Your task to perform on an android device: turn notification dots off Image 0: 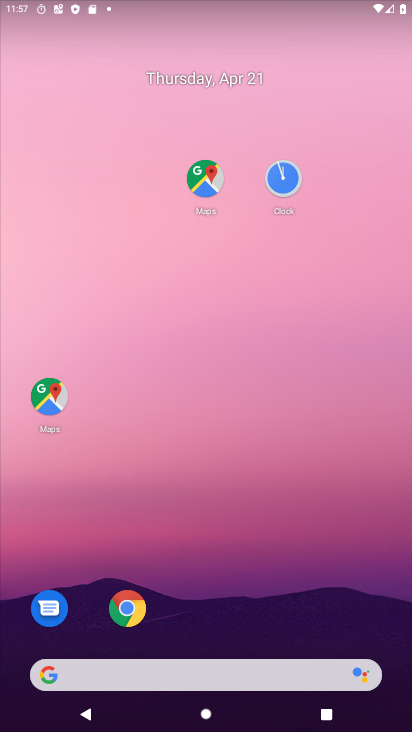
Step 0: drag from (293, 687) to (165, 118)
Your task to perform on an android device: turn notification dots off Image 1: 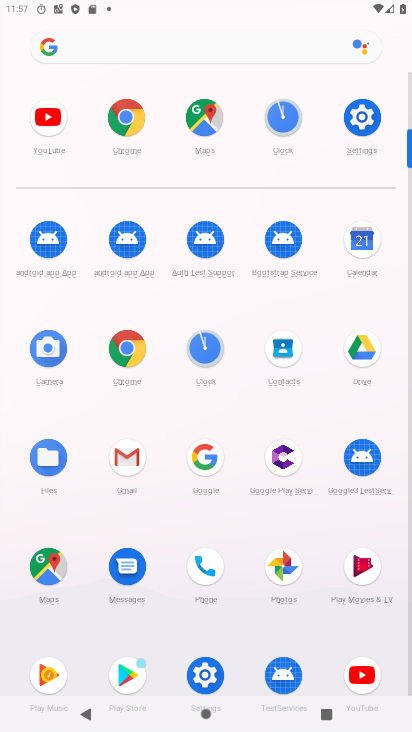
Step 1: click (355, 105)
Your task to perform on an android device: turn notification dots off Image 2: 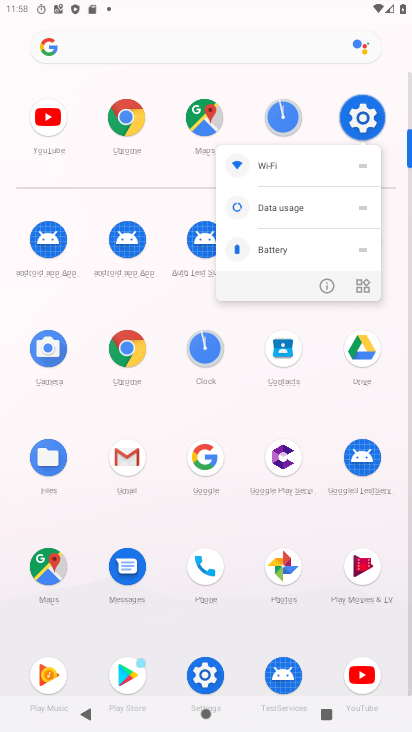
Step 2: click (355, 105)
Your task to perform on an android device: turn notification dots off Image 3: 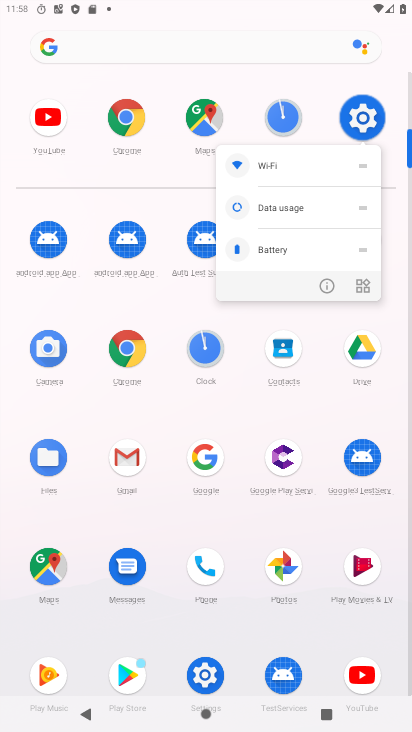
Step 3: click (355, 105)
Your task to perform on an android device: turn notification dots off Image 4: 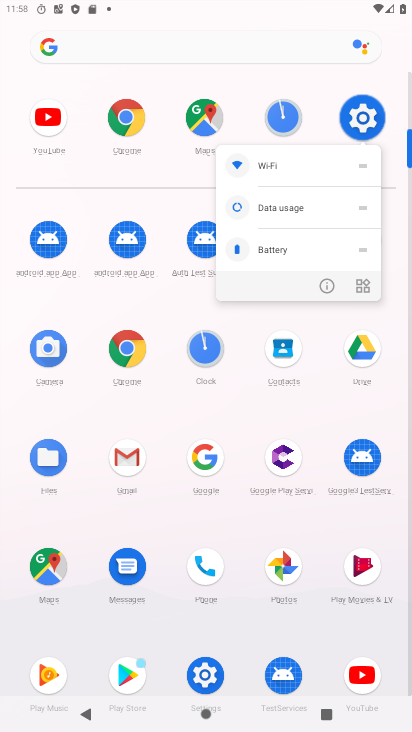
Step 4: click (354, 120)
Your task to perform on an android device: turn notification dots off Image 5: 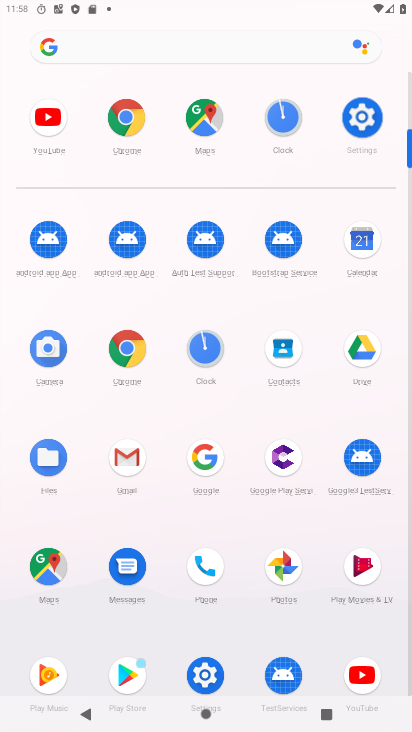
Step 5: click (357, 120)
Your task to perform on an android device: turn notification dots off Image 6: 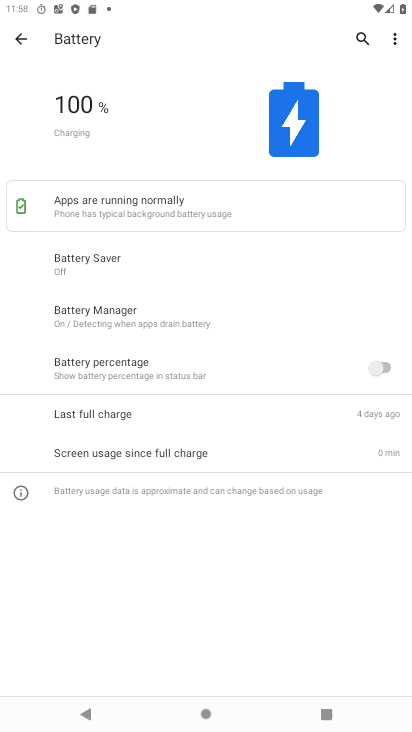
Step 6: click (18, 35)
Your task to perform on an android device: turn notification dots off Image 7: 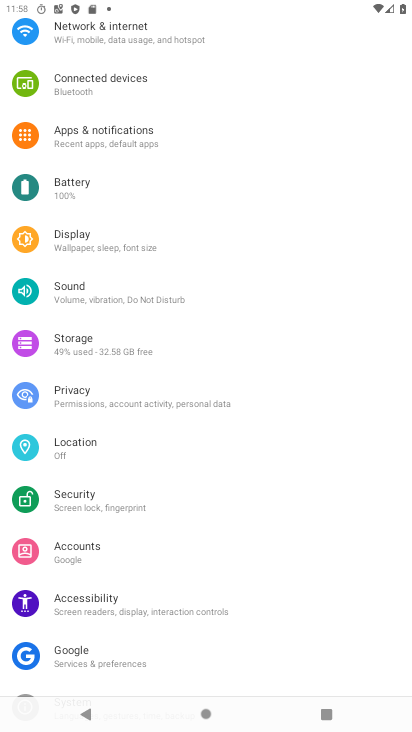
Step 7: click (93, 135)
Your task to perform on an android device: turn notification dots off Image 8: 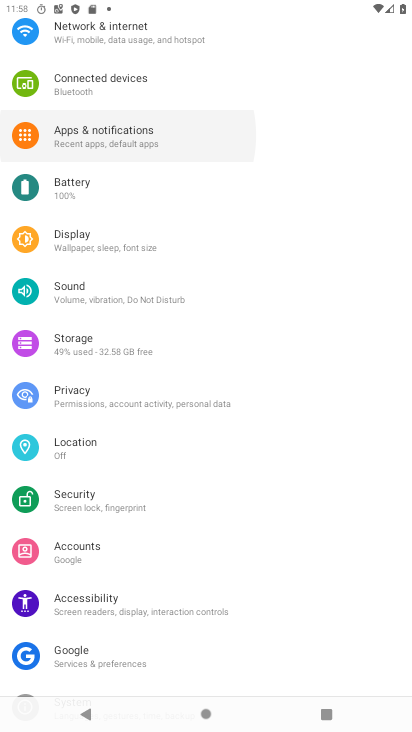
Step 8: click (92, 136)
Your task to perform on an android device: turn notification dots off Image 9: 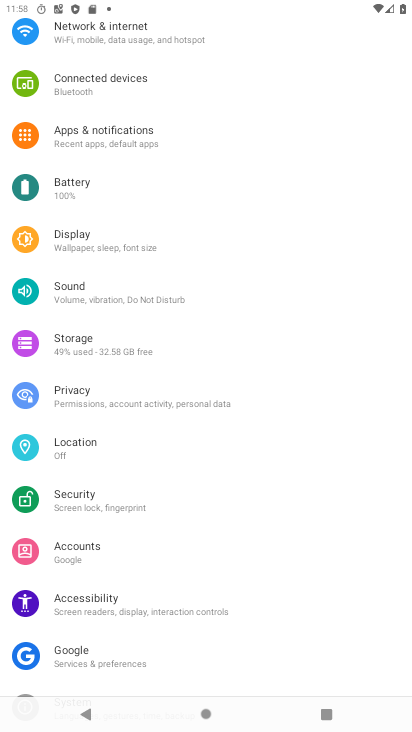
Step 9: click (92, 136)
Your task to perform on an android device: turn notification dots off Image 10: 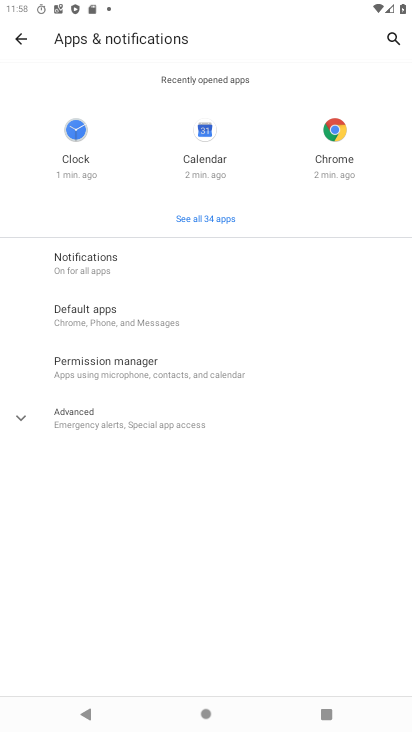
Step 10: click (81, 263)
Your task to perform on an android device: turn notification dots off Image 11: 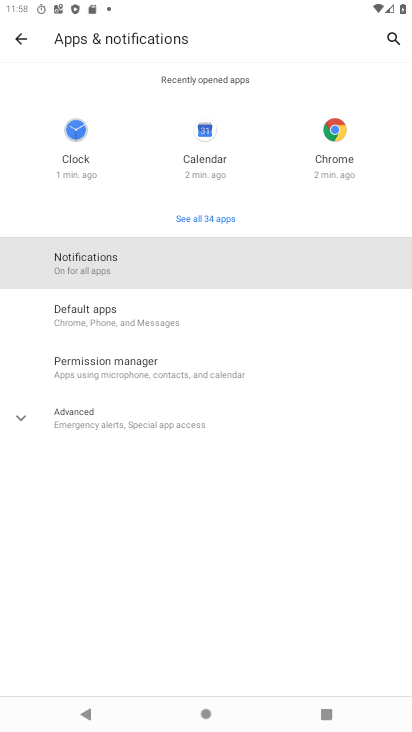
Step 11: click (80, 263)
Your task to perform on an android device: turn notification dots off Image 12: 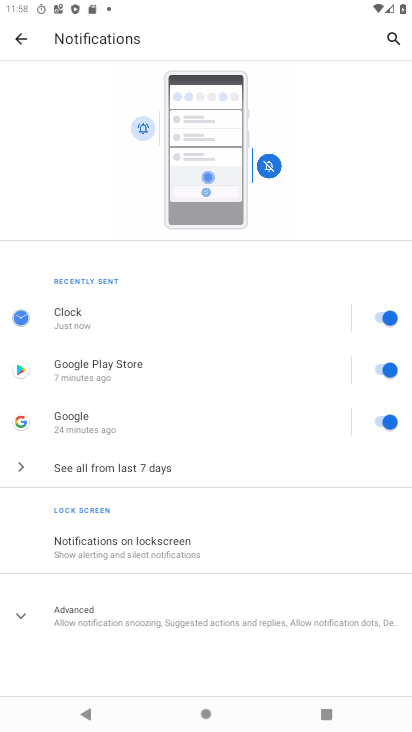
Step 12: drag from (120, 570) to (123, 250)
Your task to perform on an android device: turn notification dots off Image 13: 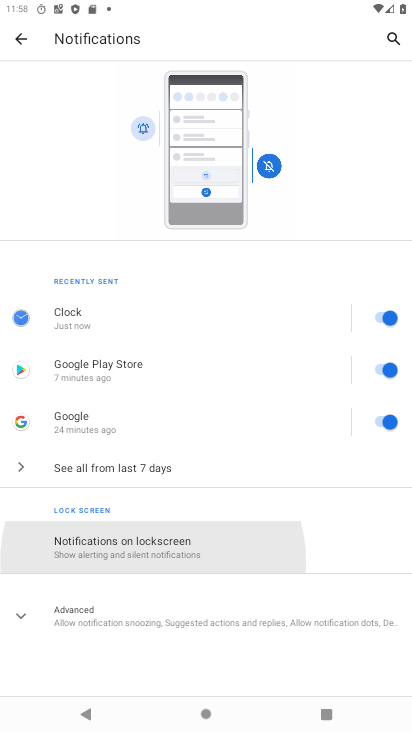
Step 13: drag from (188, 260) to (187, 147)
Your task to perform on an android device: turn notification dots off Image 14: 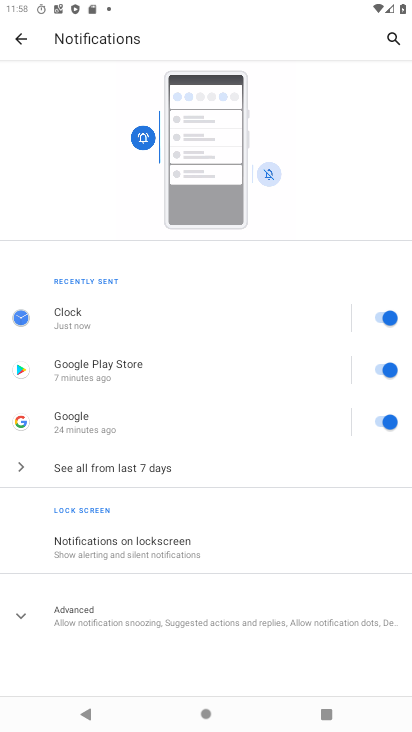
Step 14: drag from (97, 401) to (97, 79)
Your task to perform on an android device: turn notification dots off Image 15: 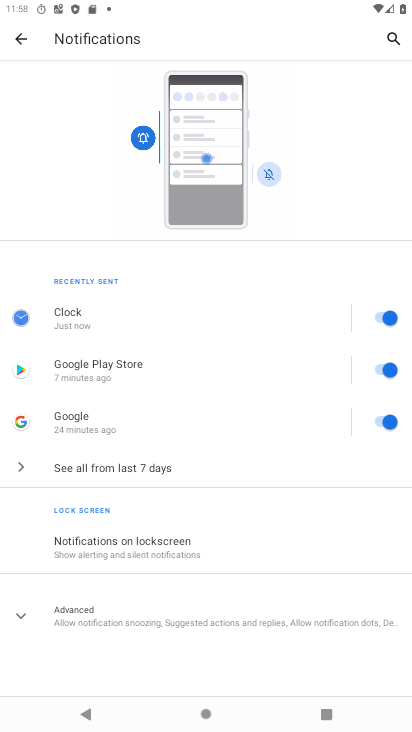
Step 15: click (71, 42)
Your task to perform on an android device: turn notification dots off Image 16: 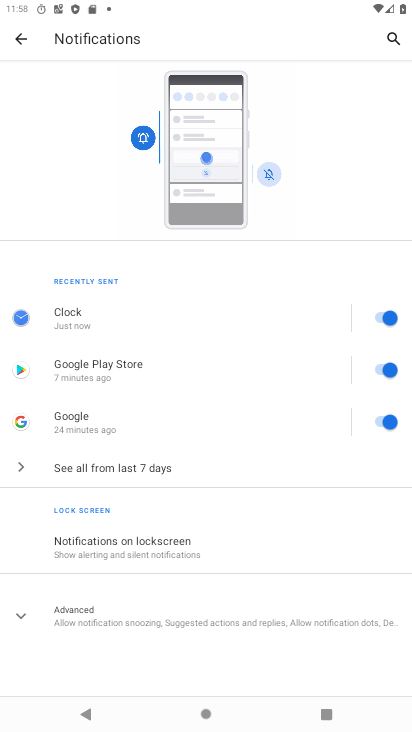
Step 16: drag from (54, 234) to (46, 25)
Your task to perform on an android device: turn notification dots off Image 17: 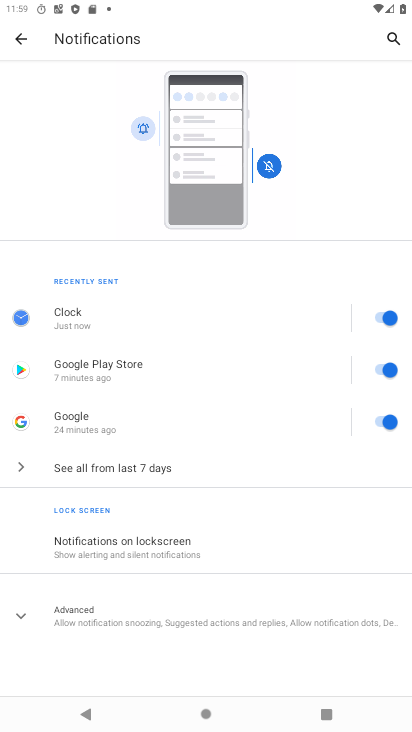
Step 17: click (114, 542)
Your task to perform on an android device: turn notification dots off Image 18: 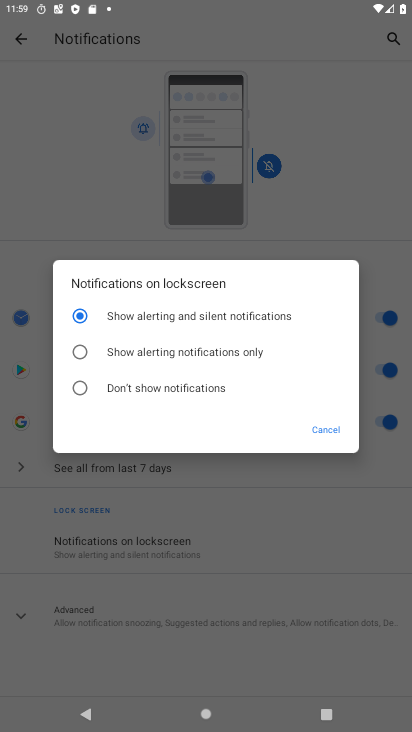
Step 18: click (335, 423)
Your task to perform on an android device: turn notification dots off Image 19: 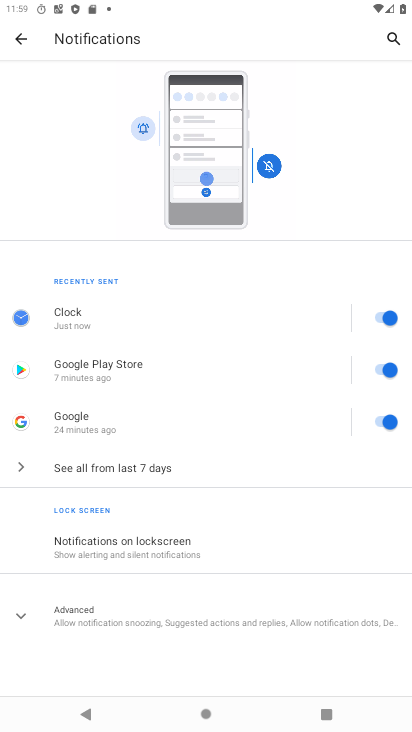
Step 19: drag from (150, 579) to (159, 234)
Your task to perform on an android device: turn notification dots off Image 20: 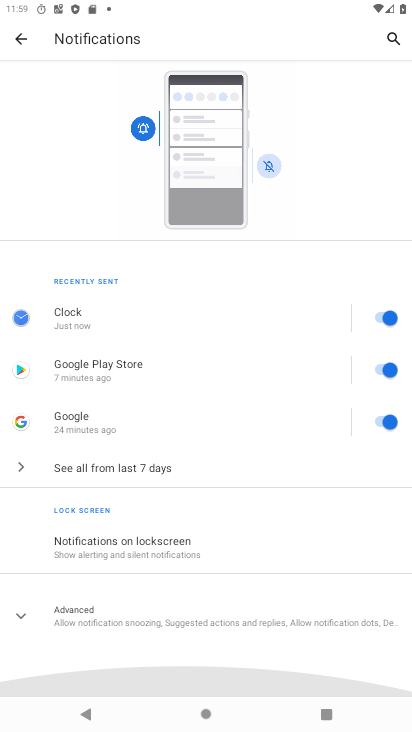
Step 20: click (139, 126)
Your task to perform on an android device: turn notification dots off Image 21: 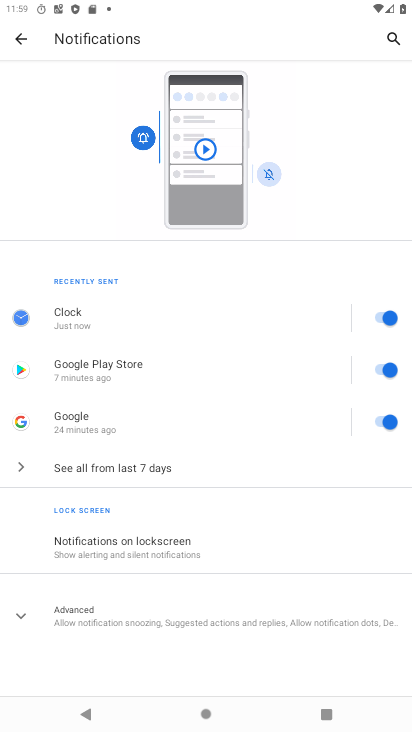
Step 21: drag from (164, 498) to (129, 107)
Your task to perform on an android device: turn notification dots off Image 22: 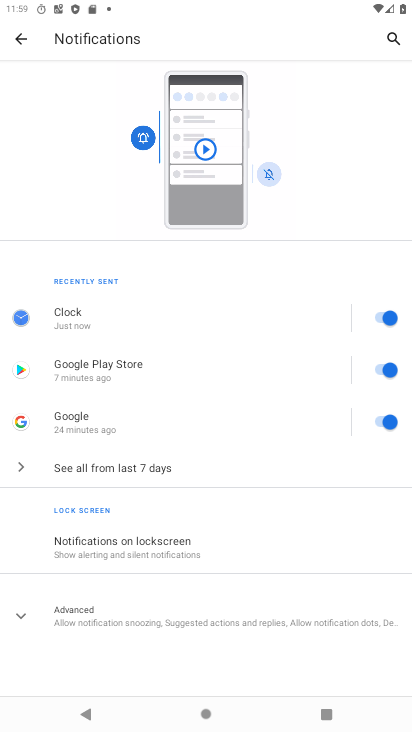
Step 22: click (94, 612)
Your task to perform on an android device: turn notification dots off Image 23: 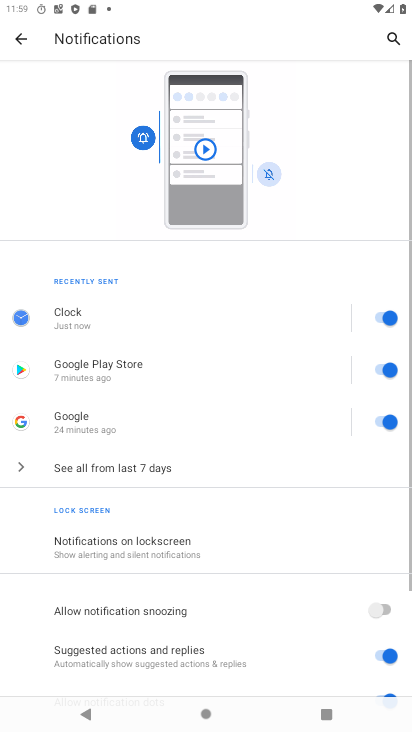
Step 23: drag from (218, 629) to (252, 130)
Your task to perform on an android device: turn notification dots off Image 24: 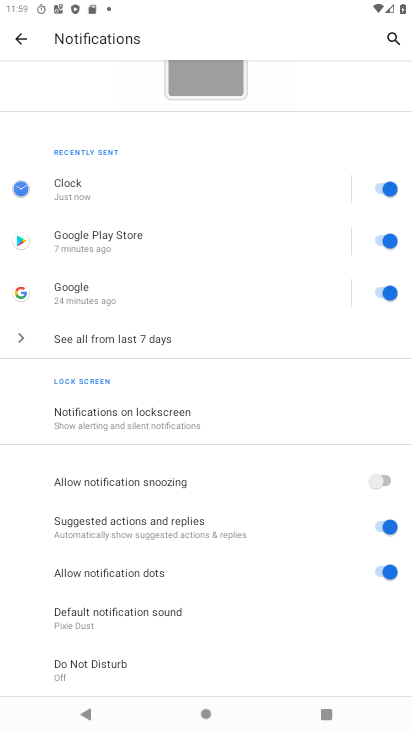
Step 24: click (388, 576)
Your task to perform on an android device: turn notification dots off Image 25: 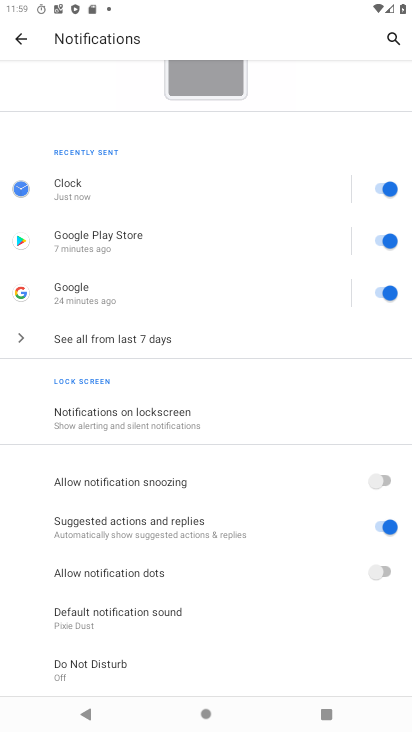
Step 25: task complete